Your task to perform on an android device: Open Google Maps and go to "Timeline" Image 0: 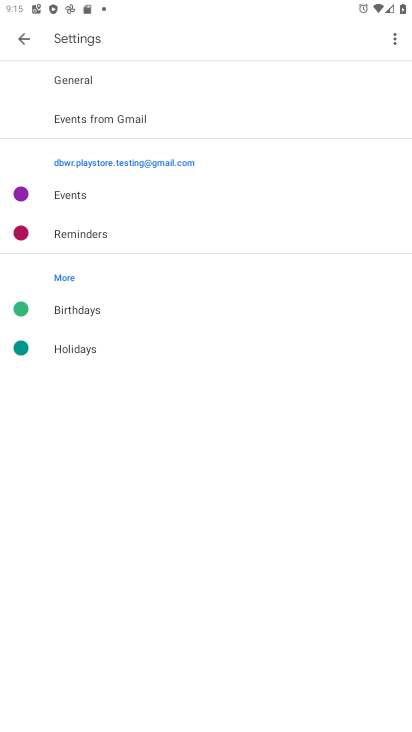
Step 0: press home button
Your task to perform on an android device: Open Google Maps and go to "Timeline" Image 1: 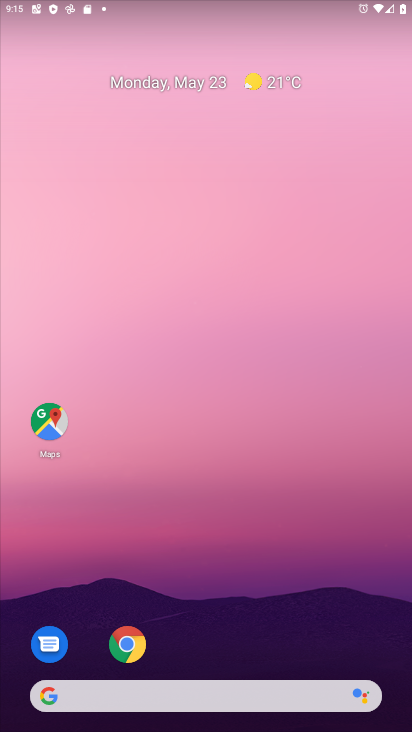
Step 1: click (39, 426)
Your task to perform on an android device: Open Google Maps and go to "Timeline" Image 2: 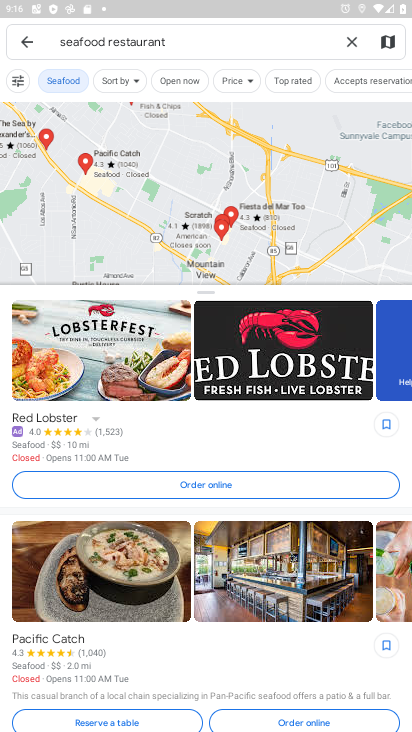
Step 2: click (18, 38)
Your task to perform on an android device: Open Google Maps and go to "Timeline" Image 3: 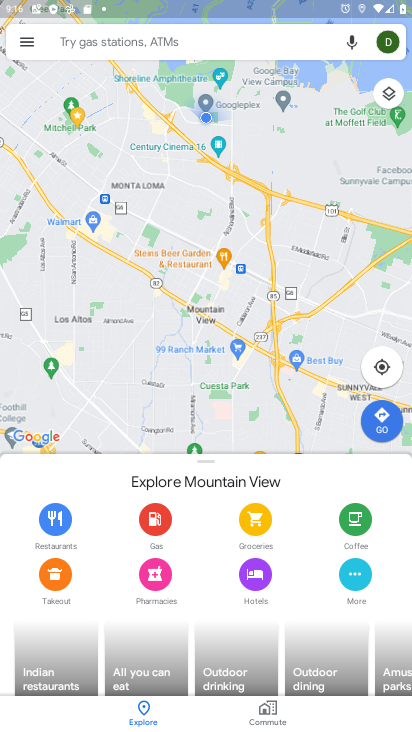
Step 3: click (26, 39)
Your task to perform on an android device: Open Google Maps and go to "Timeline" Image 4: 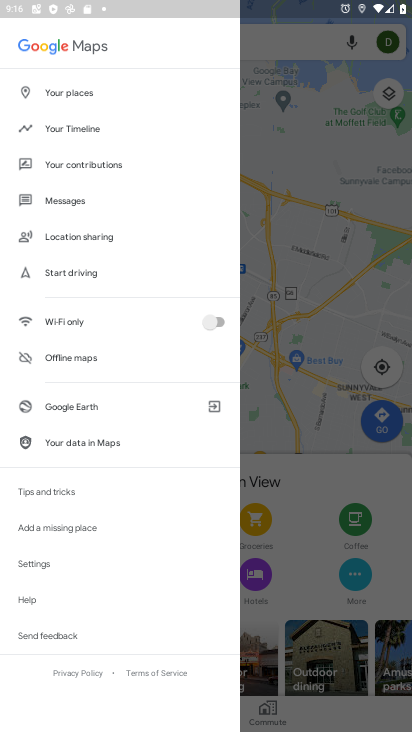
Step 4: click (100, 123)
Your task to perform on an android device: Open Google Maps and go to "Timeline" Image 5: 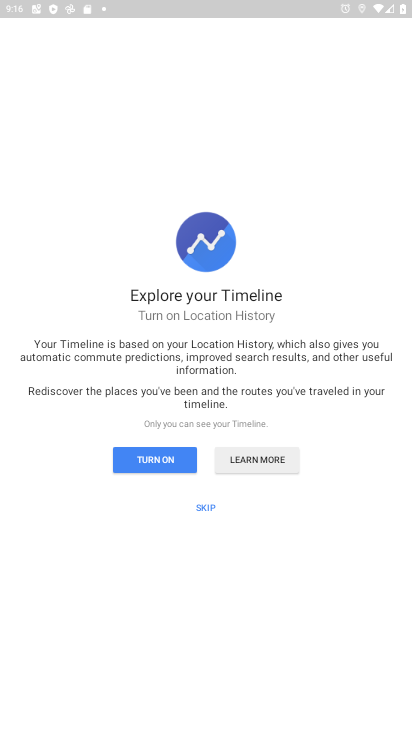
Step 5: click (203, 501)
Your task to perform on an android device: Open Google Maps and go to "Timeline" Image 6: 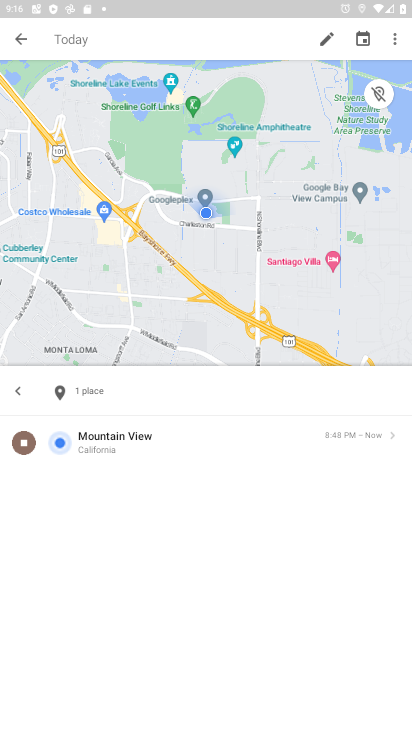
Step 6: task complete